Your task to perform on an android device: check google app version Image 0: 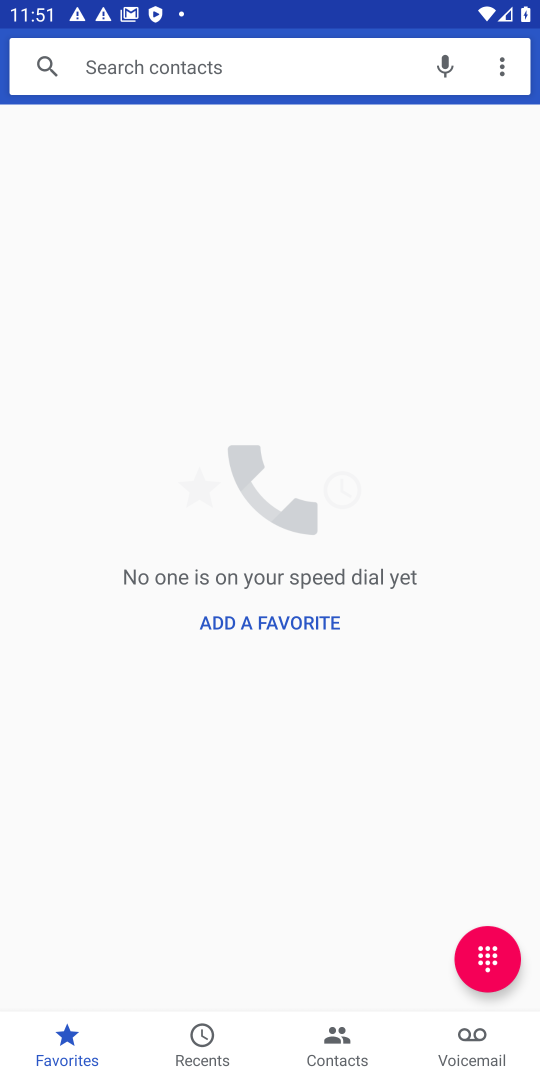
Step 0: press home button
Your task to perform on an android device: check google app version Image 1: 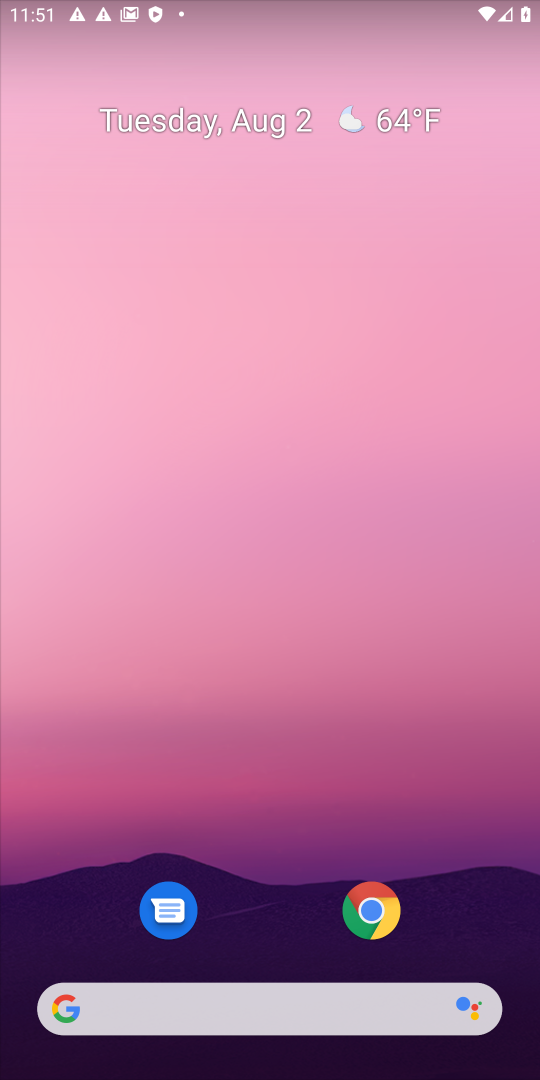
Step 1: drag from (270, 807) to (301, 53)
Your task to perform on an android device: check google app version Image 2: 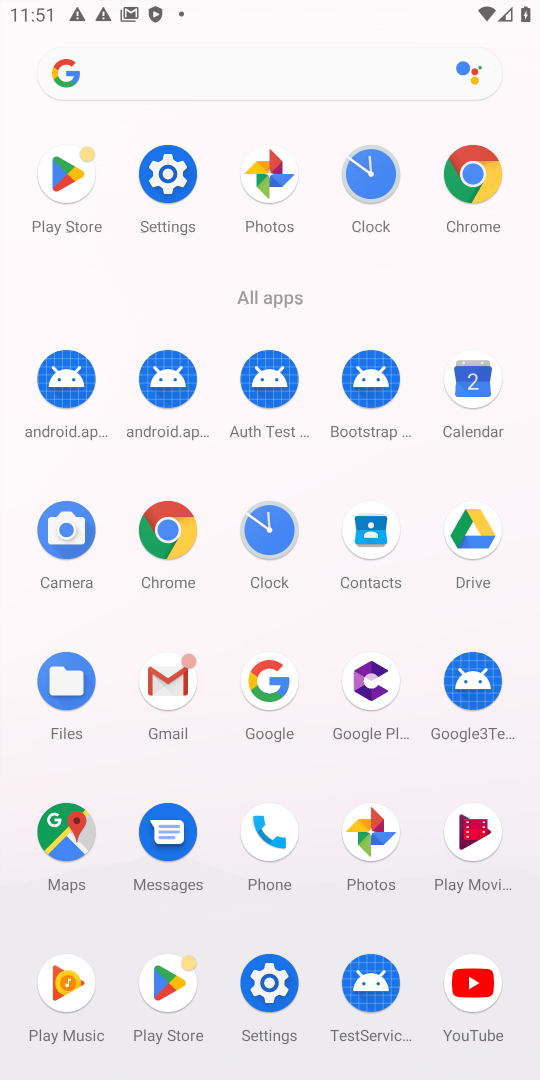
Step 2: click (270, 685)
Your task to perform on an android device: check google app version Image 3: 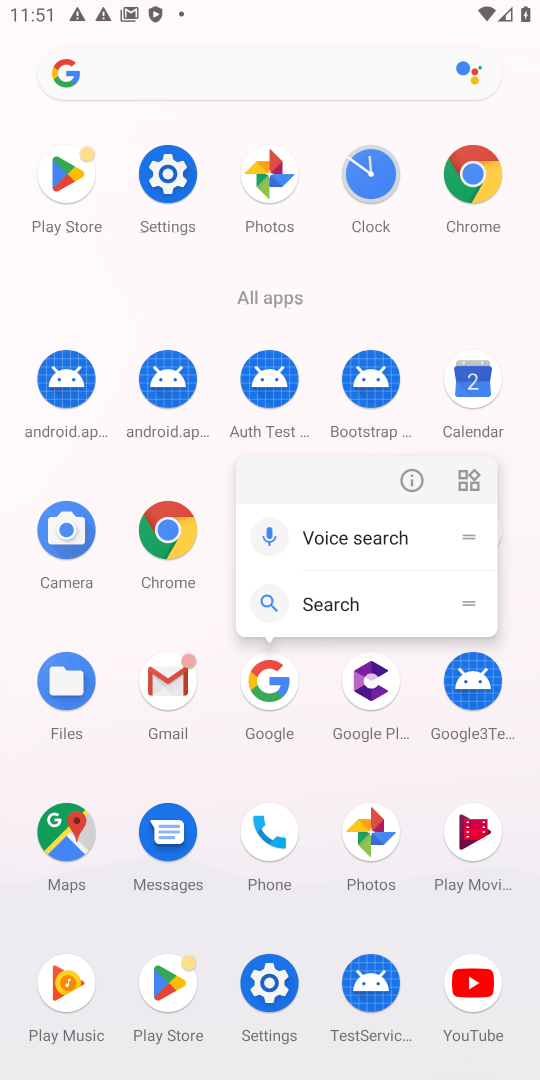
Step 3: click (405, 474)
Your task to perform on an android device: check google app version Image 4: 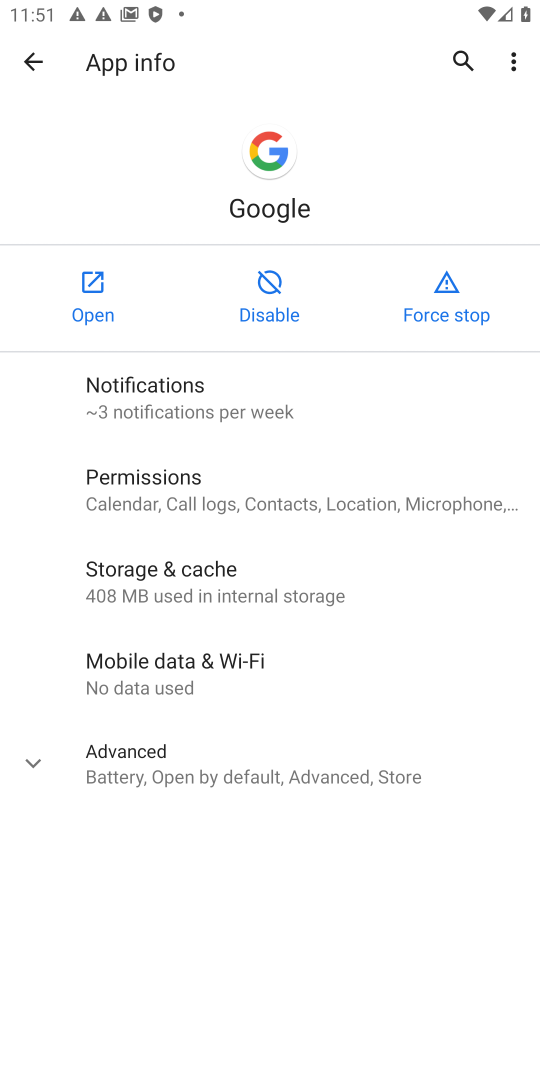
Step 4: click (36, 773)
Your task to perform on an android device: check google app version Image 5: 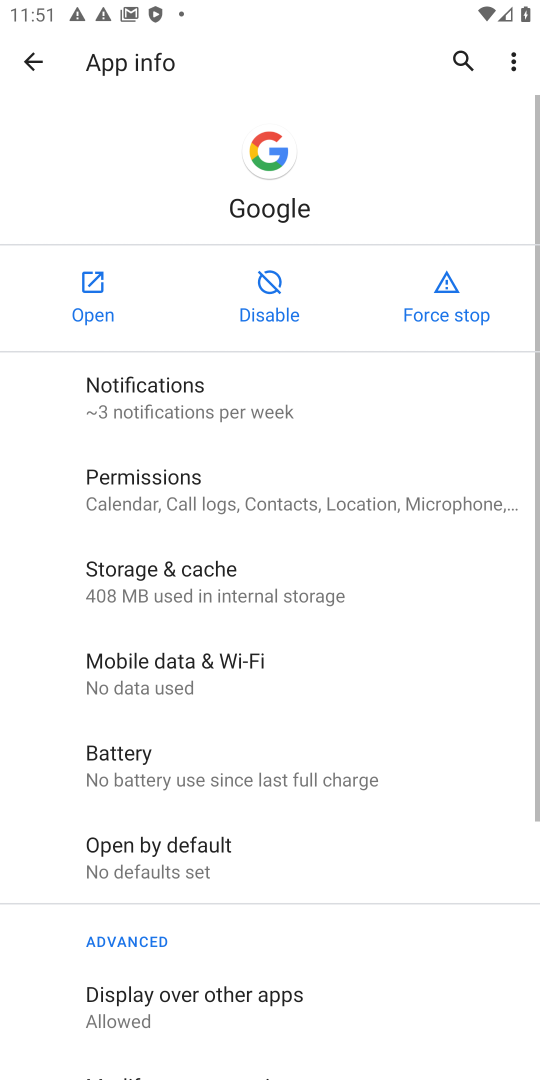
Step 5: task complete